Your task to perform on an android device: turn off notifications settings in the gmail app Image 0: 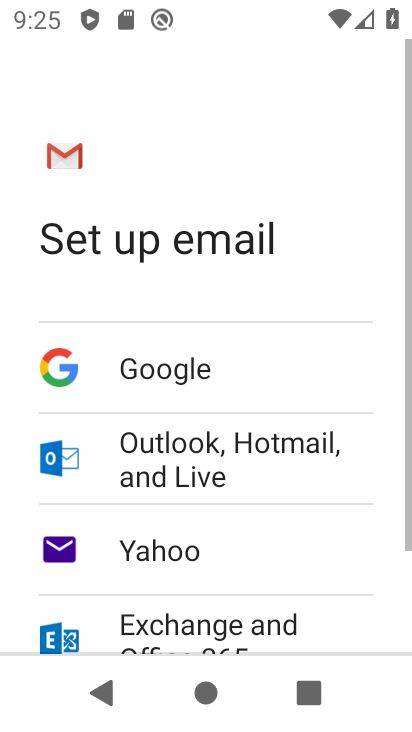
Step 0: press home button
Your task to perform on an android device: turn off notifications settings in the gmail app Image 1: 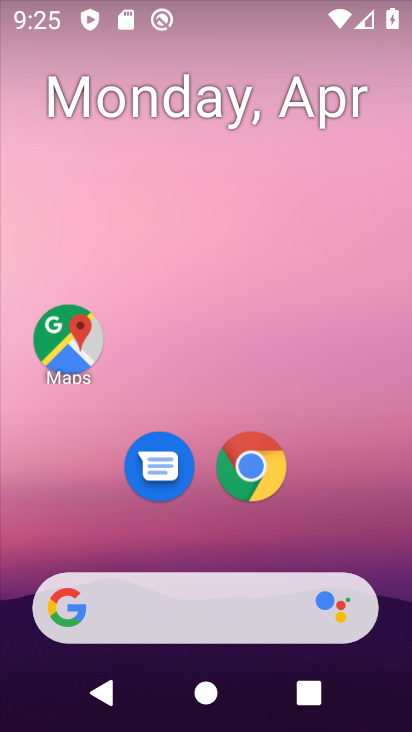
Step 1: drag from (191, 534) to (258, 60)
Your task to perform on an android device: turn off notifications settings in the gmail app Image 2: 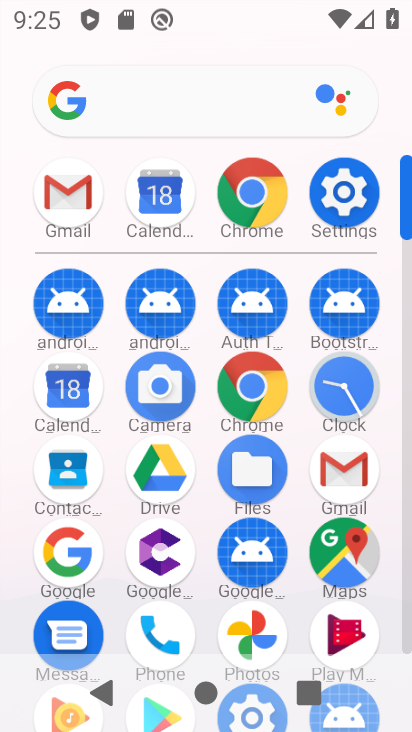
Step 2: click (344, 473)
Your task to perform on an android device: turn off notifications settings in the gmail app Image 3: 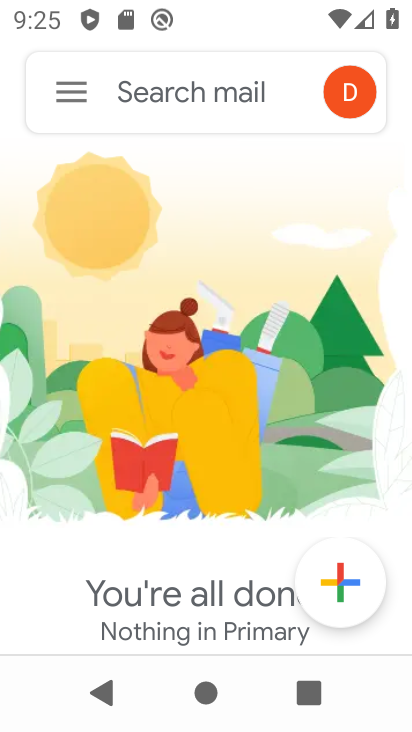
Step 3: click (72, 91)
Your task to perform on an android device: turn off notifications settings in the gmail app Image 4: 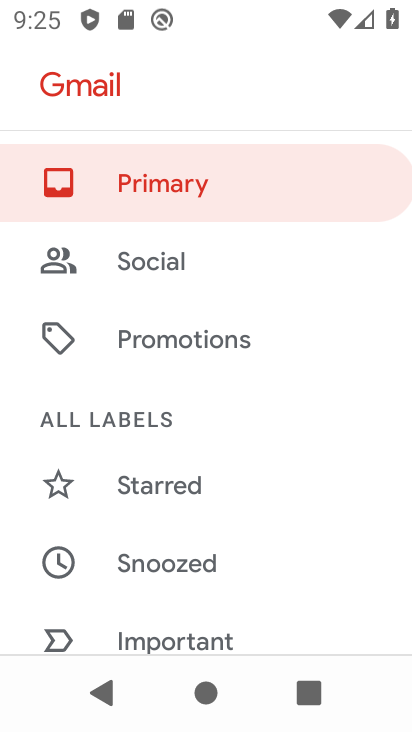
Step 4: drag from (223, 502) to (246, 406)
Your task to perform on an android device: turn off notifications settings in the gmail app Image 5: 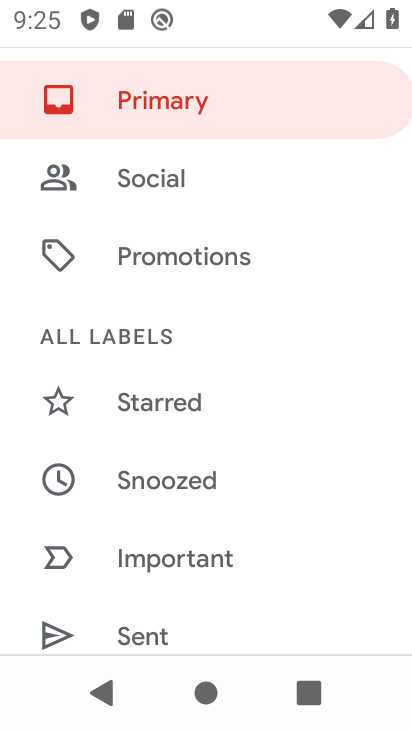
Step 5: drag from (232, 562) to (262, 435)
Your task to perform on an android device: turn off notifications settings in the gmail app Image 6: 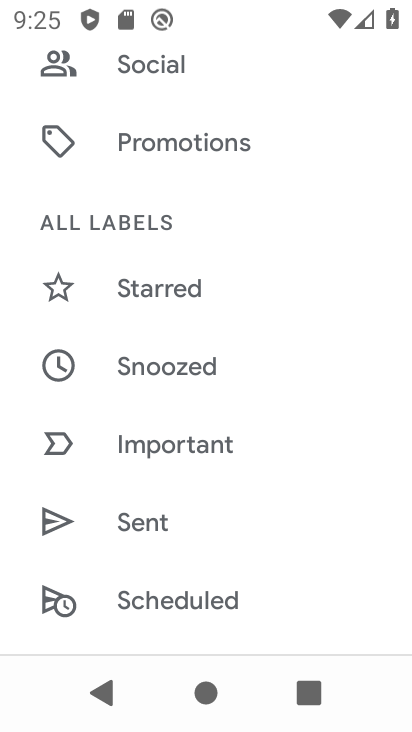
Step 6: drag from (207, 570) to (239, 402)
Your task to perform on an android device: turn off notifications settings in the gmail app Image 7: 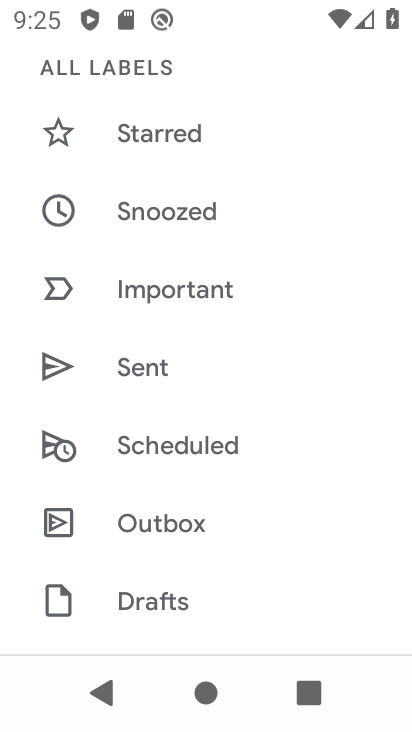
Step 7: drag from (218, 585) to (249, 449)
Your task to perform on an android device: turn off notifications settings in the gmail app Image 8: 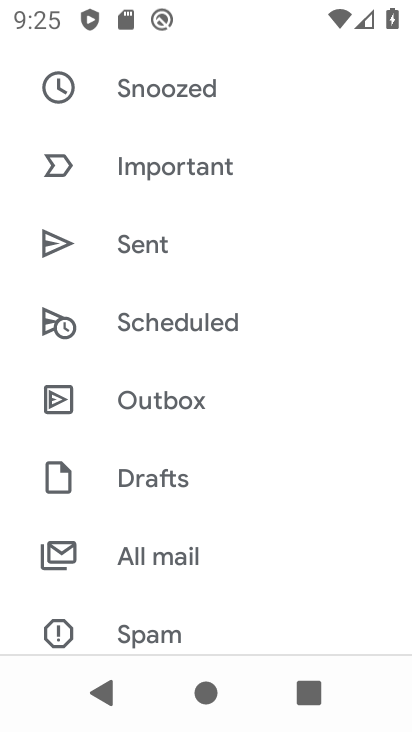
Step 8: drag from (237, 602) to (262, 494)
Your task to perform on an android device: turn off notifications settings in the gmail app Image 9: 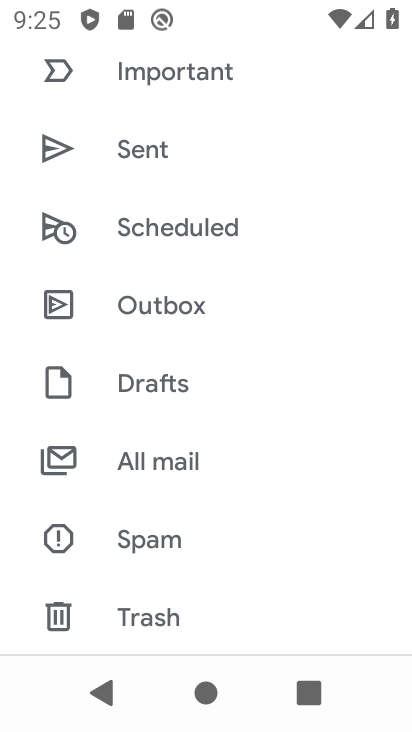
Step 9: drag from (238, 580) to (255, 483)
Your task to perform on an android device: turn off notifications settings in the gmail app Image 10: 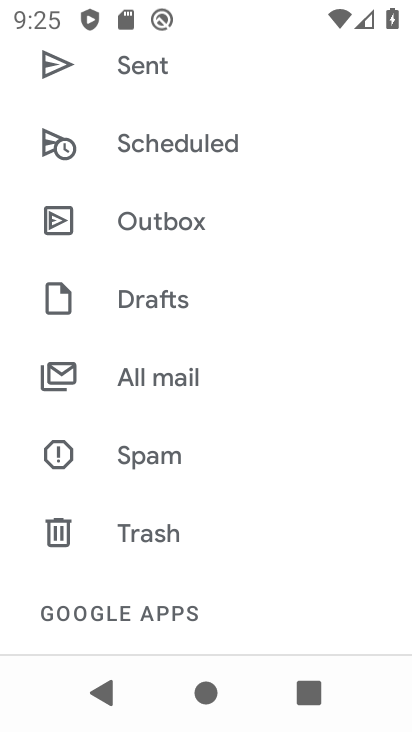
Step 10: drag from (222, 550) to (245, 428)
Your task to perform on an android device: turn off notifications settings in the gmail app Image 11: 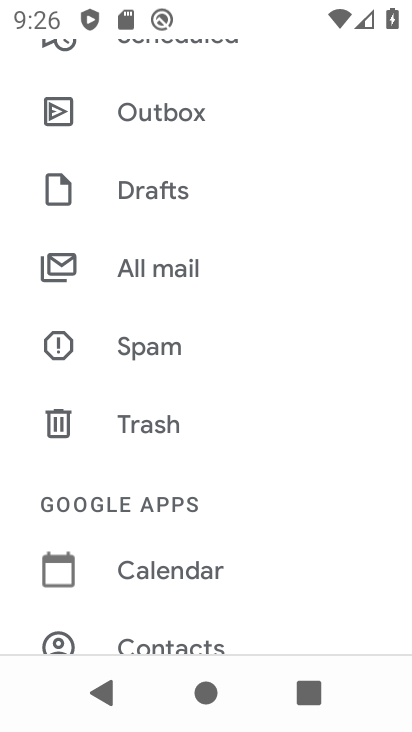
Step 11: drag from (218, 537) to (259, 444)
Your task to perform on an android device: turn off notifications settings in the gmail app Image 12: 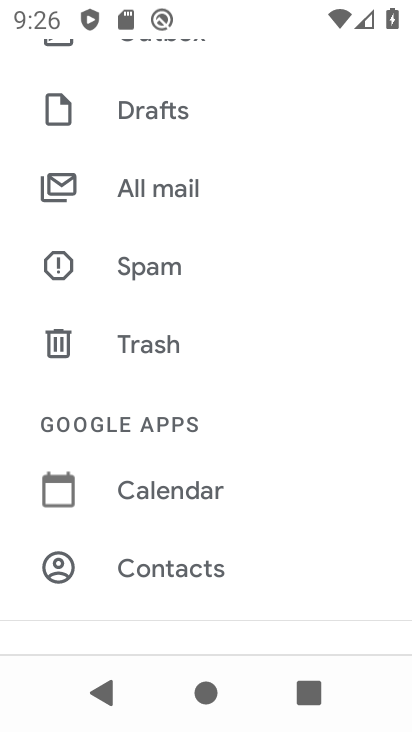
Step 12: drag from (231, 552) to (264, 470)
Your task to perform on an android device: turn off notifications settings in the gmail app Image 13: 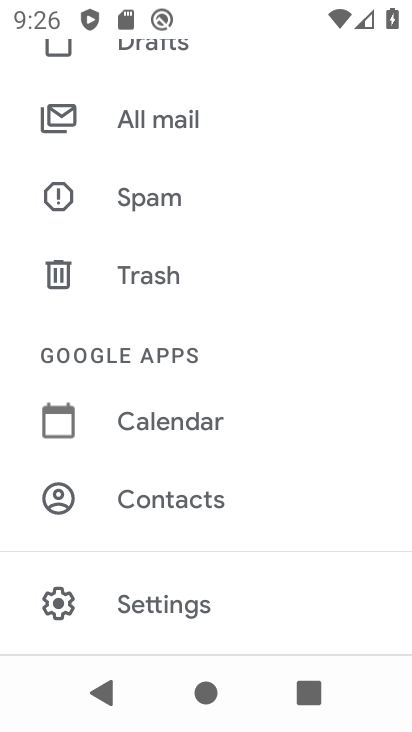
Step 13: click (190, 611)
Your task to perform on an android device: turn off notifications settings in the gmail app Image 14: 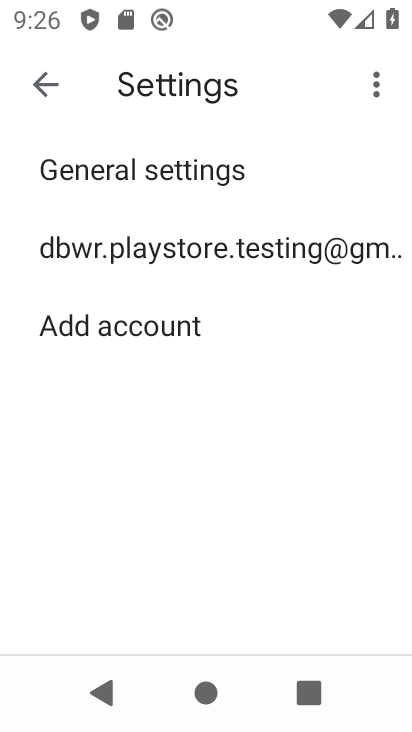
Step 14: click (289, 251)
Your task to perform on an android device: turn off notifications settings in the gmail app Image 15: 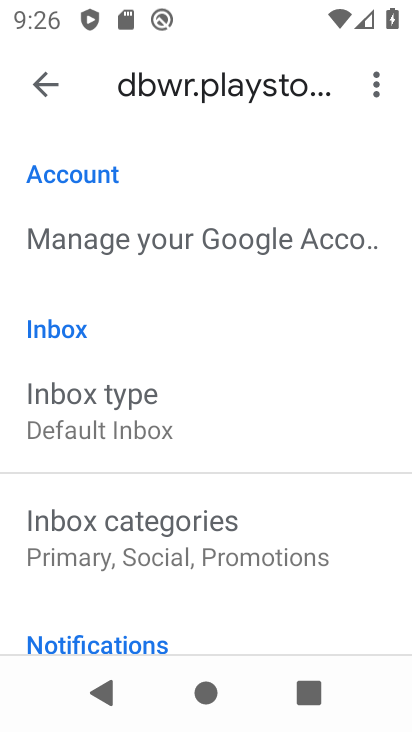
Step 15: drag from (151, 564) to (200, 404)
Your task to perform on an android device: turn off notifications settings in the gmail app Image 16: 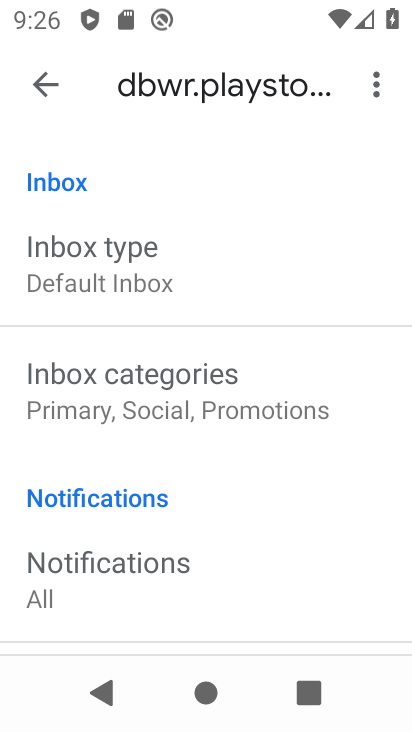
Step 16: drag from (185, 553) to (211, 424)
Your task to perform on an android device: turn off notifications settings in the gmail app Image 17: 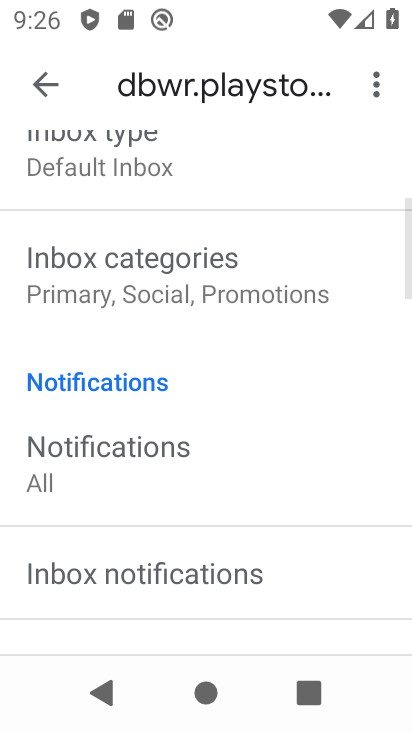
Step 17: drag from (203, 551) to (223, 433)
Your task to perform on an android device: turn off notifications settings in the gmail app Image 18: 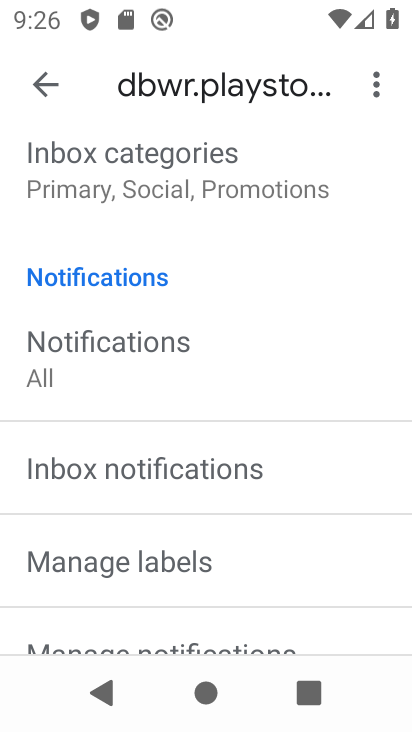
Step 18: drag from (170, 540) to (211, 432)
Your task to perform on an android device: turn off notifications settings in the gmail app Image 19: 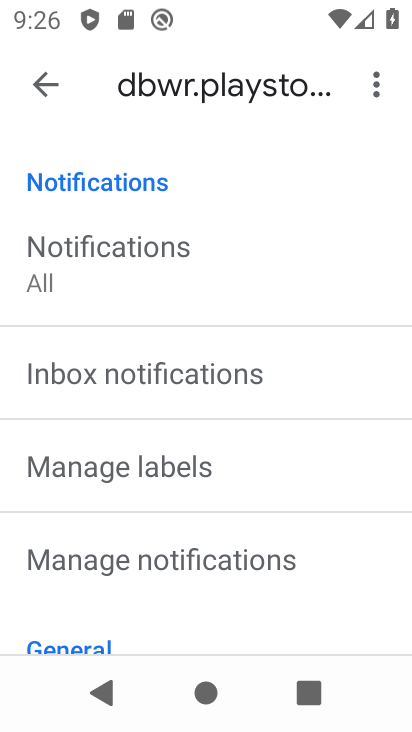
Step 19: click (196, 554)
Your task to perform on an android device: turn off notifications settings in the gmail app Image 20: 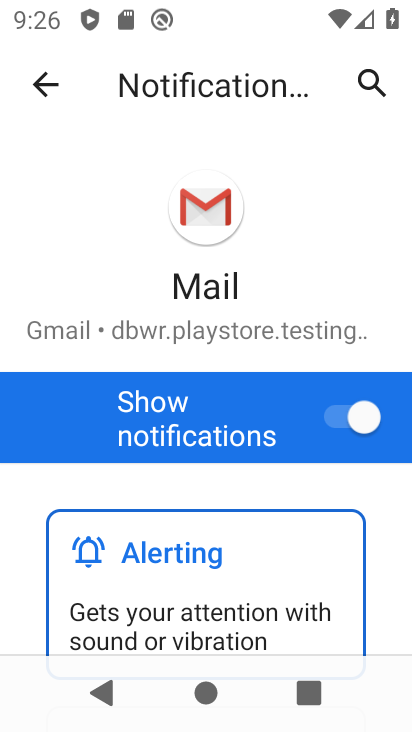
Step 20: click (365, 414)
Your task to perform on an android device: turn off notifications settings in the gmail app Image 21: 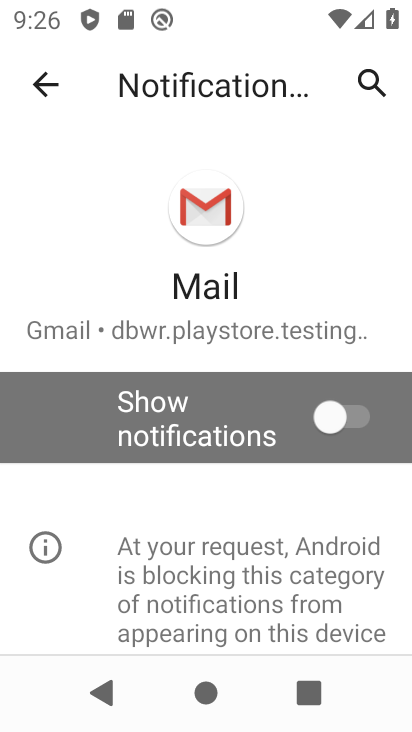
Step 21: task complete